Your task to perform on an android device: Search for acer predator on newegg.com, select the first entry, add it to the cart, then select checkout. Image 0: 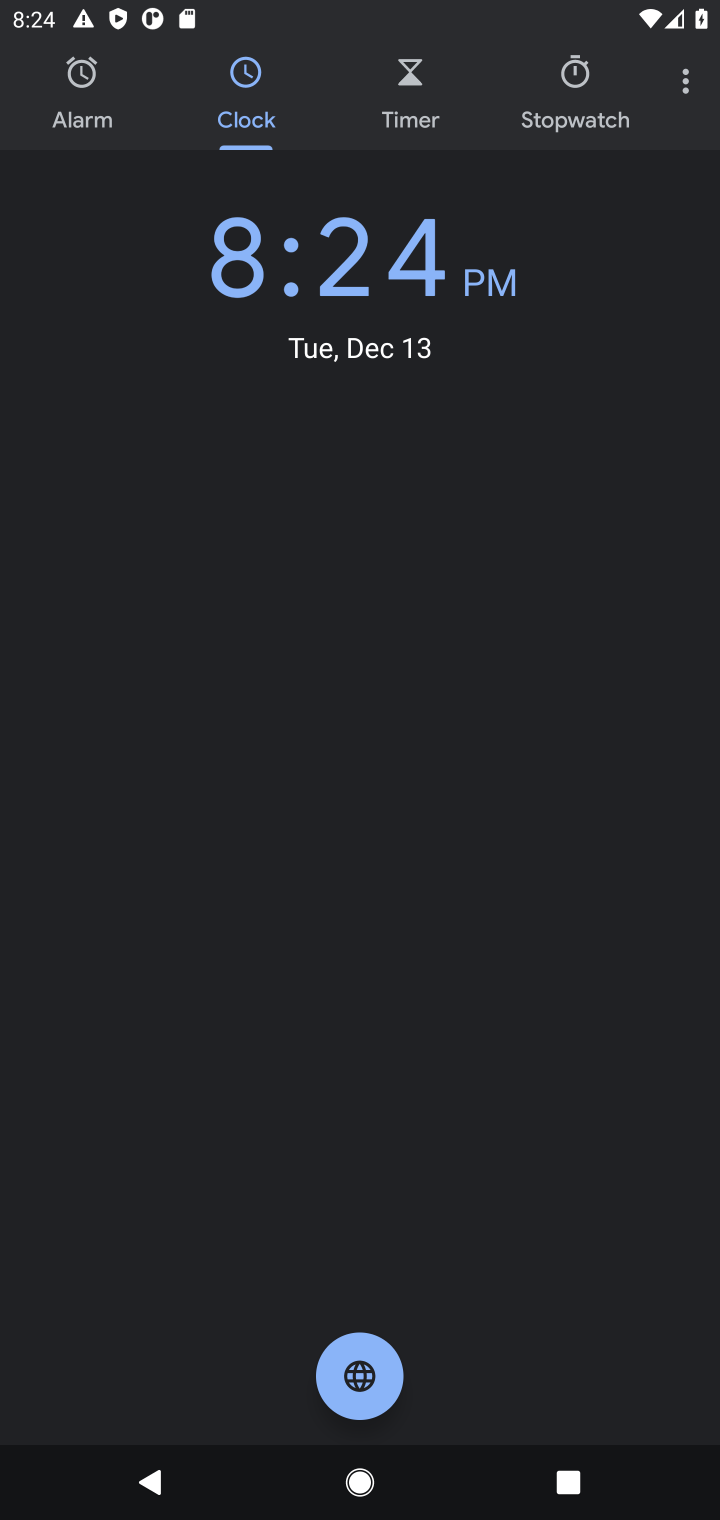
Step 0: press home button
Your task to perform on an android device: Search for acer predator on newegg.com, select the first entry, add it to the cart, then select checkout. Image 1: 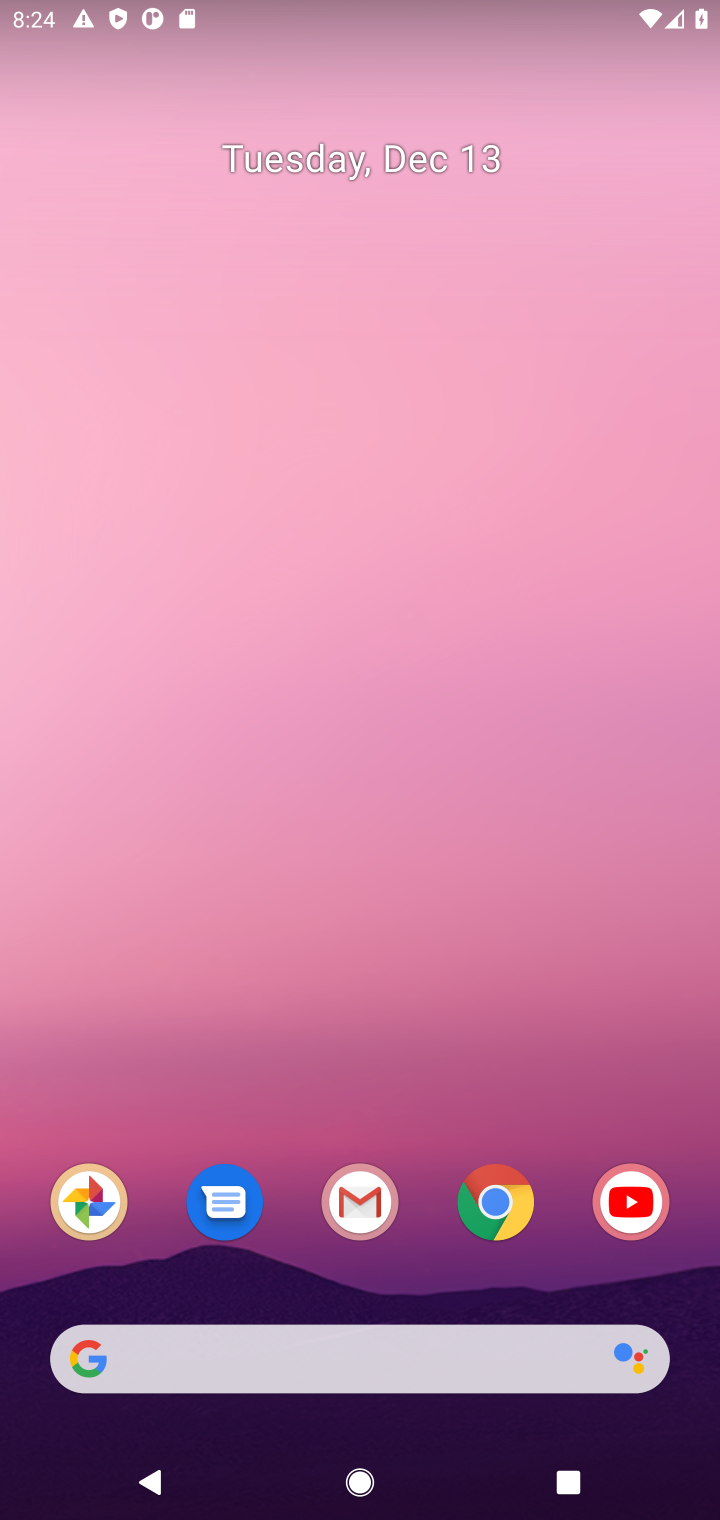
Step 1: click (491, 1216)
Your task to perform on an android device: Search for acer predator on newegg.com, select the first entry, add it to the cart, then select checkout. Image 2: 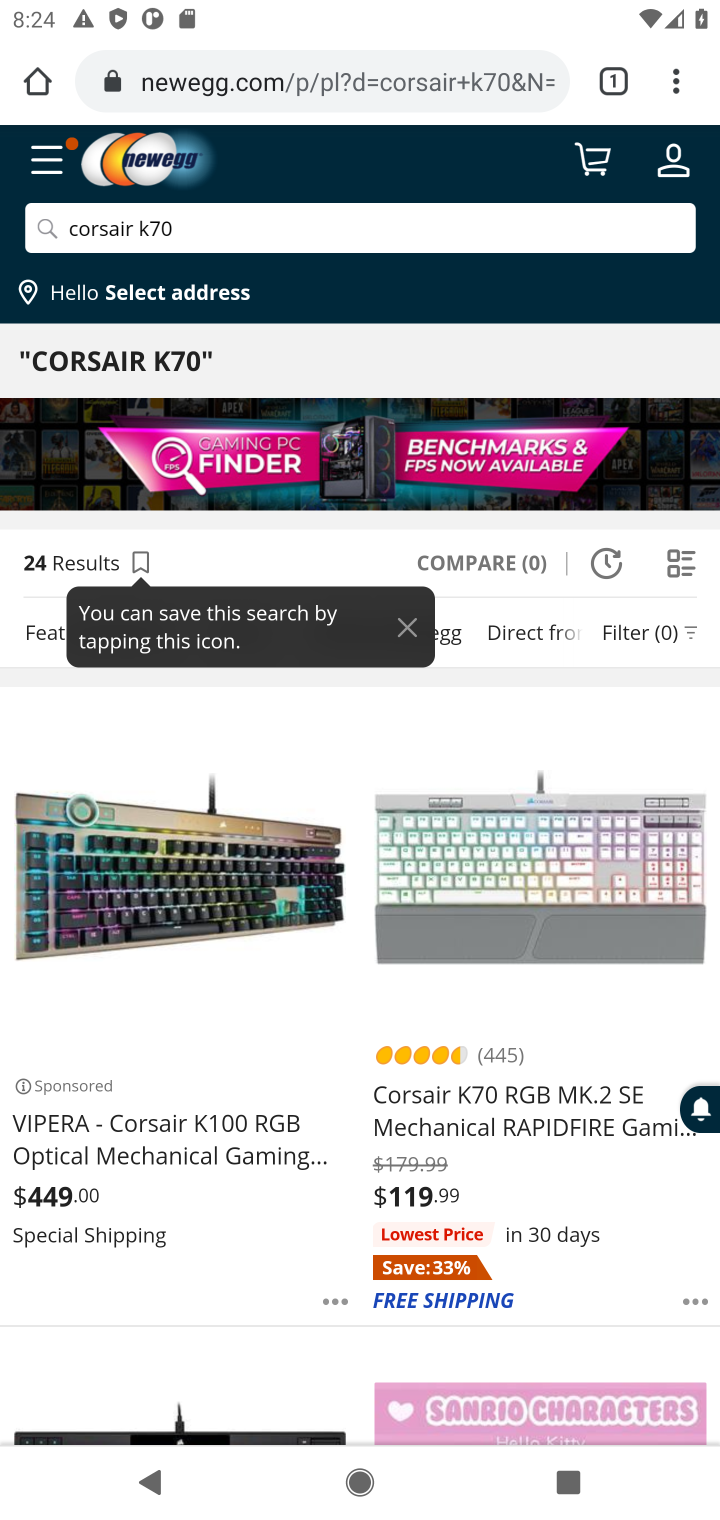
Step 2: click (374, 221)
Your task to perform on an android device: Search for acer predator on newegg.com, select the first entry, add it to the cart, then select checkout. Image 3: 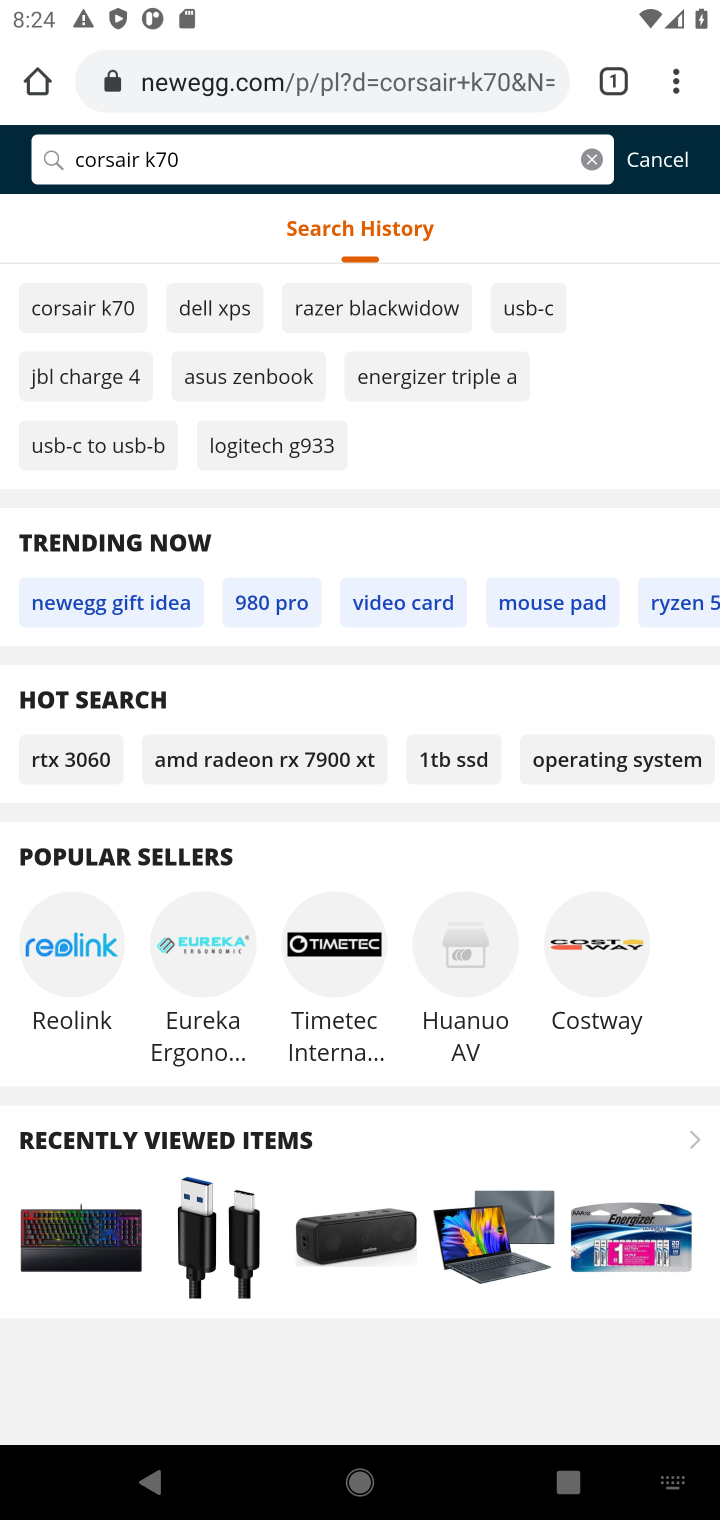
Step 3: click (603, 161)
Your task to perform on an android device: Search for acer predator on newegg.com, select the first entry, add it to the cart, then select checkout. Image 4: 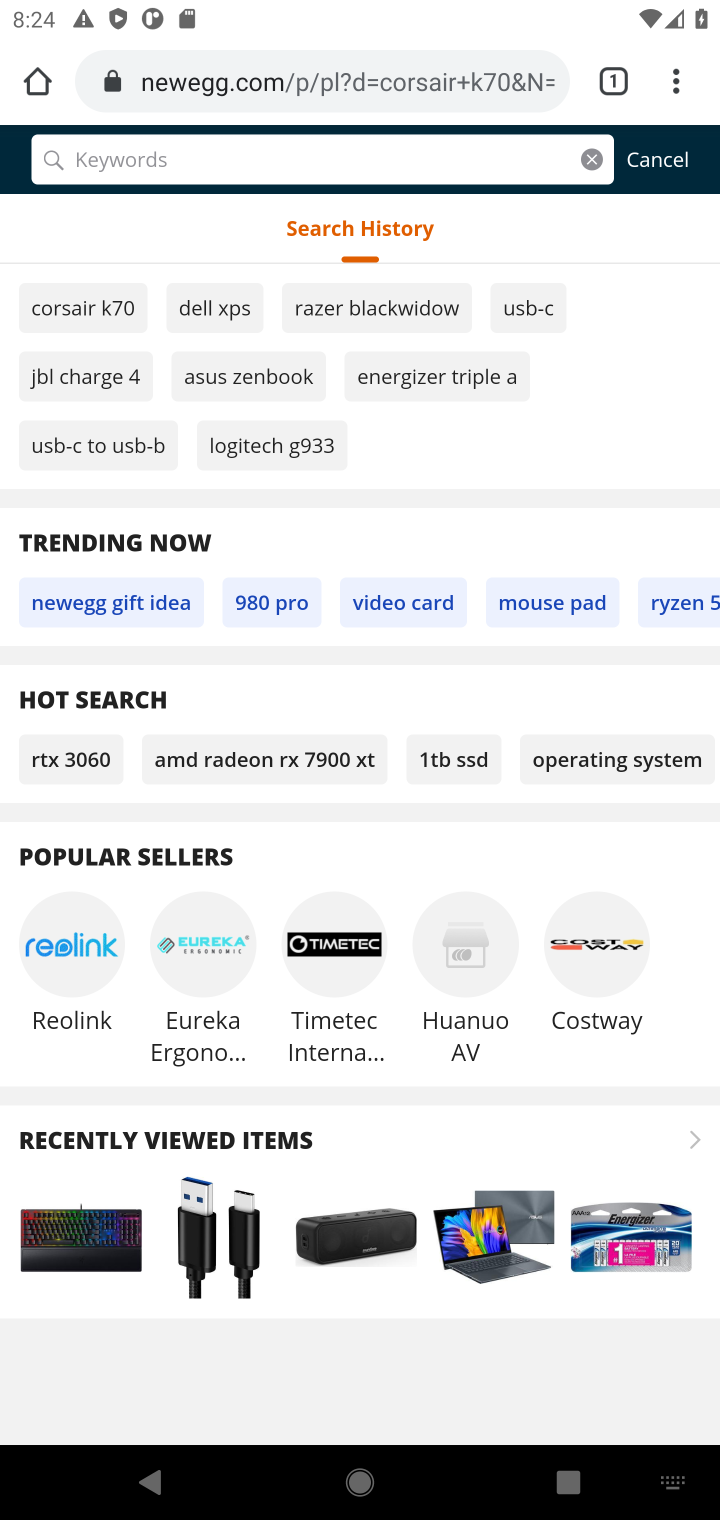
Step 4: type "acer predator"
Your task to perform on an android device: Search for acer predator on newegg.com, select the first entry, add it to the cart, then select checkout. Image 5: 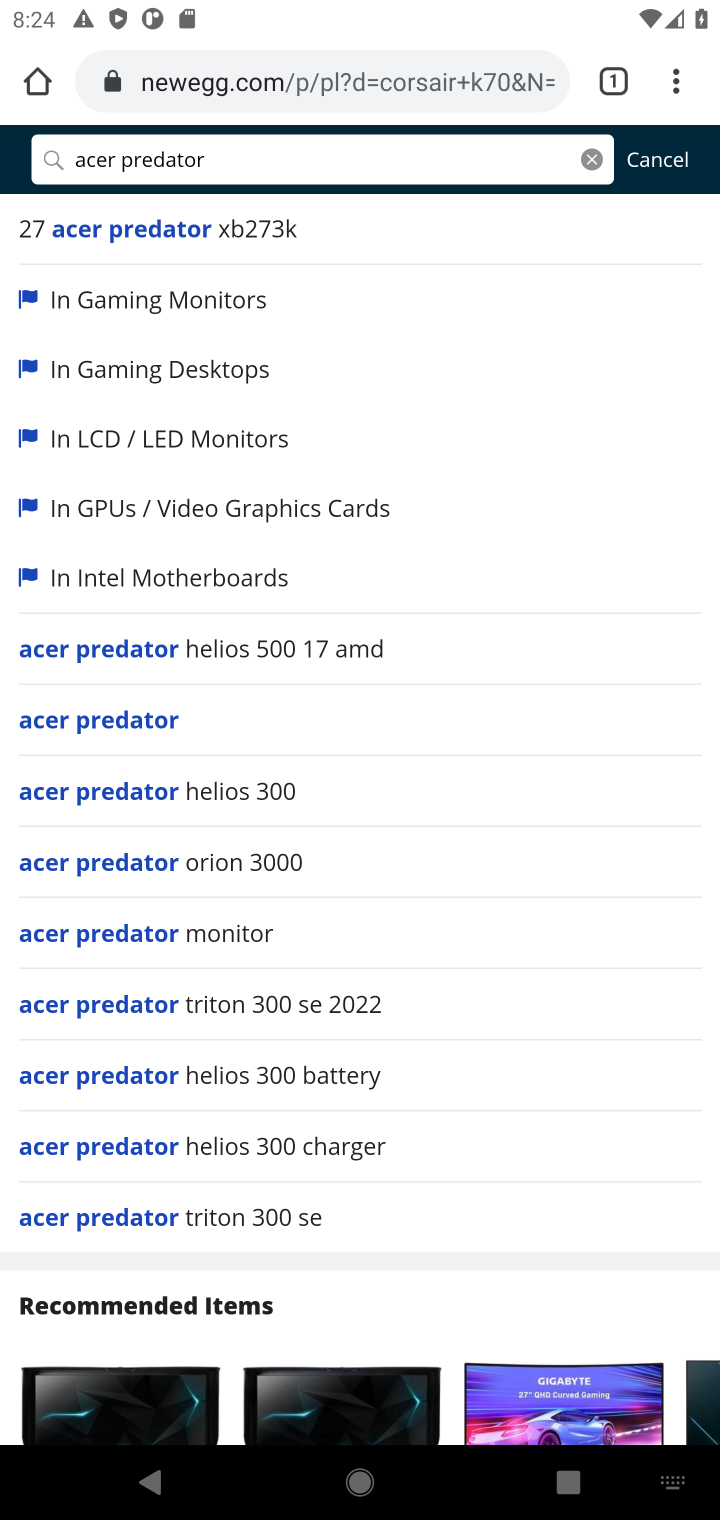
Step 5: click (96, 714)
Your task to perform on an android device: Search for acer predator on newegg.com, select the first entry, add it to the cart, then select checkout. Image 6: 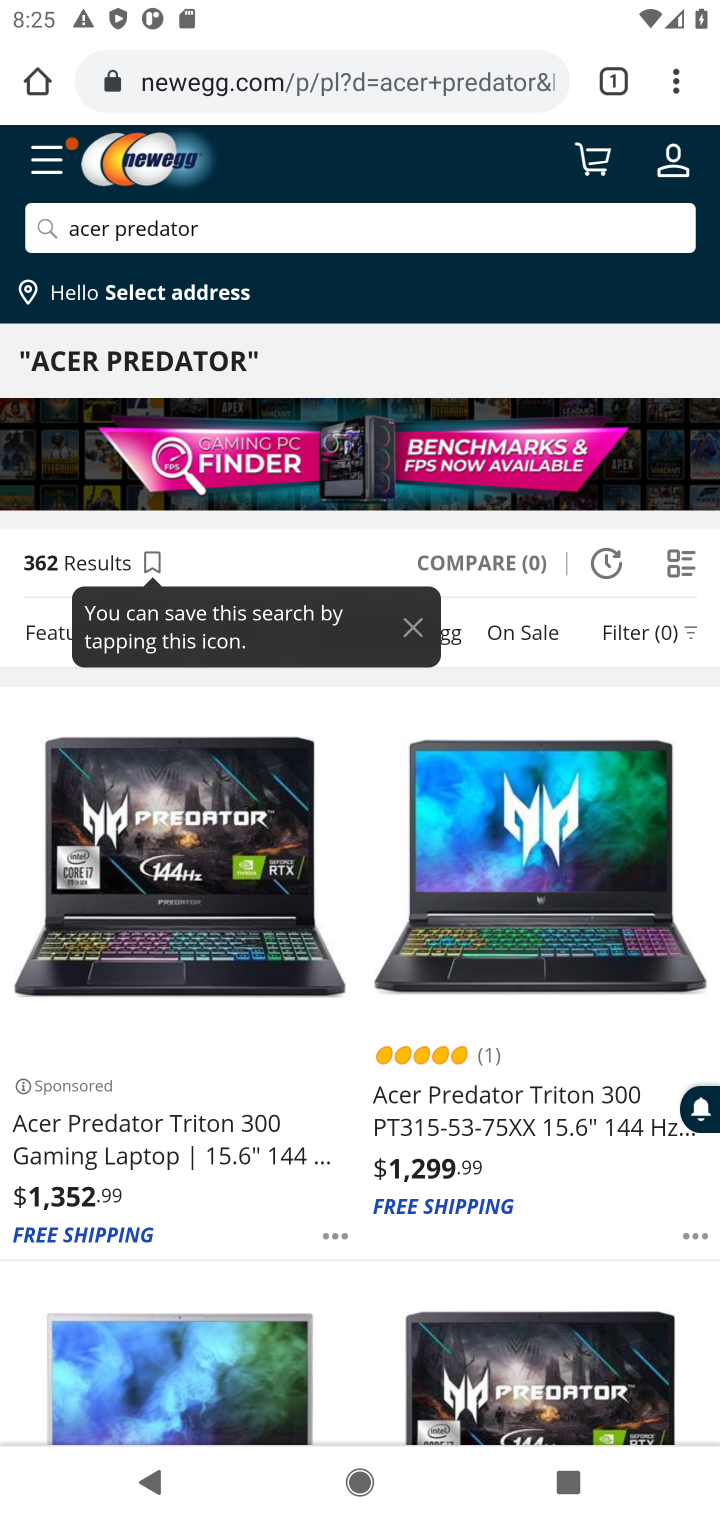
Step 6: click (210, 1008)
Your task to perform on an android device: Search for acer predator on newegg.com, select the first entry, add it to the cart, then select checkout. Image 7: 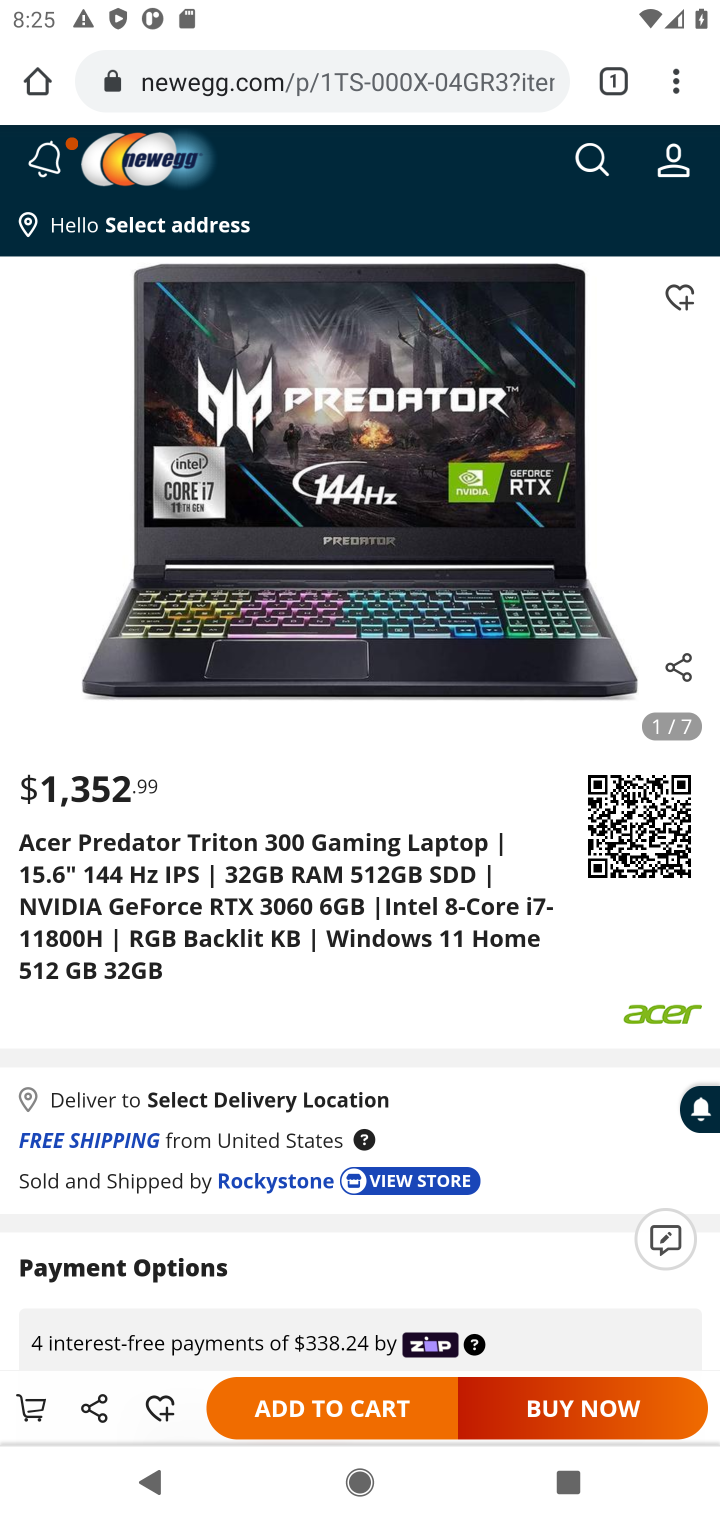
Step 7: click (377, 1410)
Your task to perform on an android device: Search for acer predator on newegg.com, select the first entry, add it to the cart, then select checkout. Image 8: 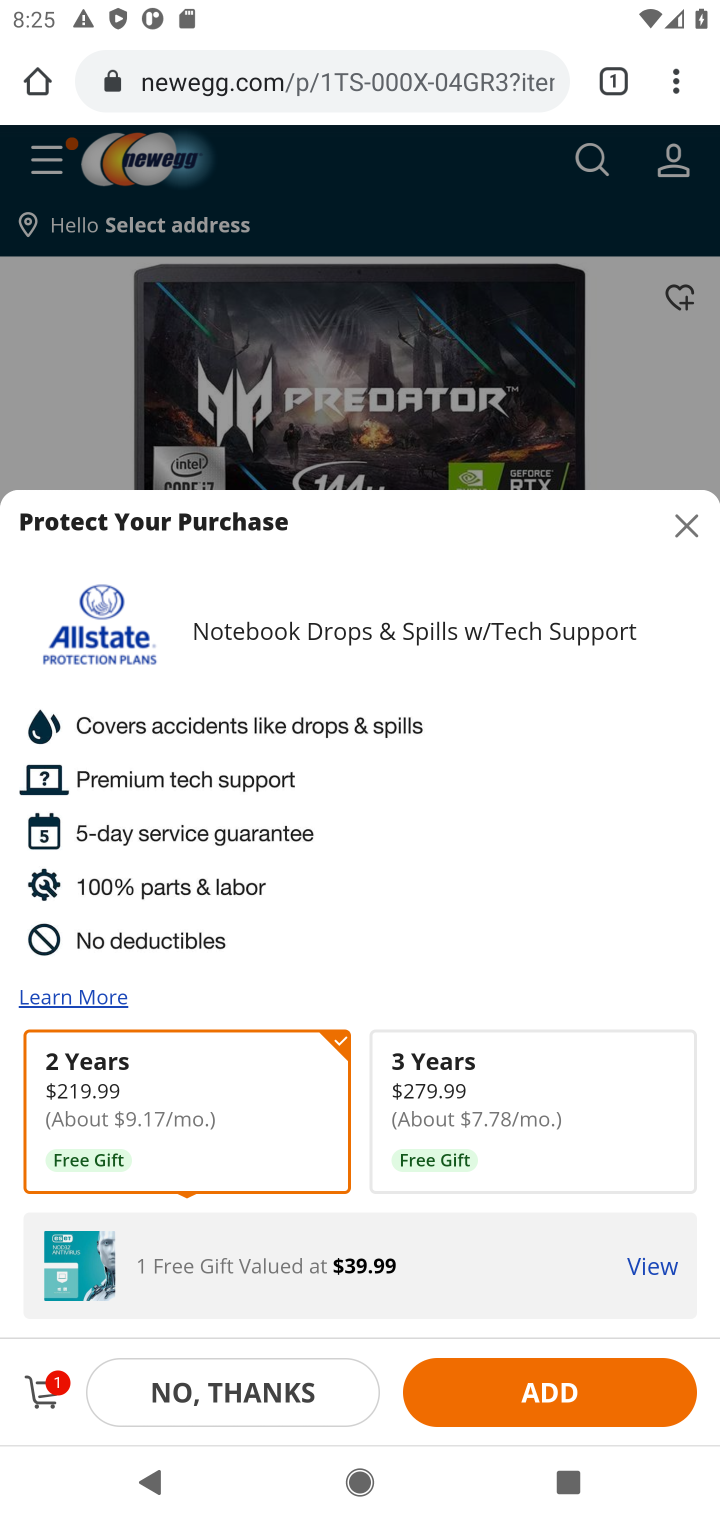
Step 8: click (293, 1392)
Your task to perform on an android device: Search for acer predator on newegg.com, select the first entry, add it to the cart, then select checkout. Image 9: 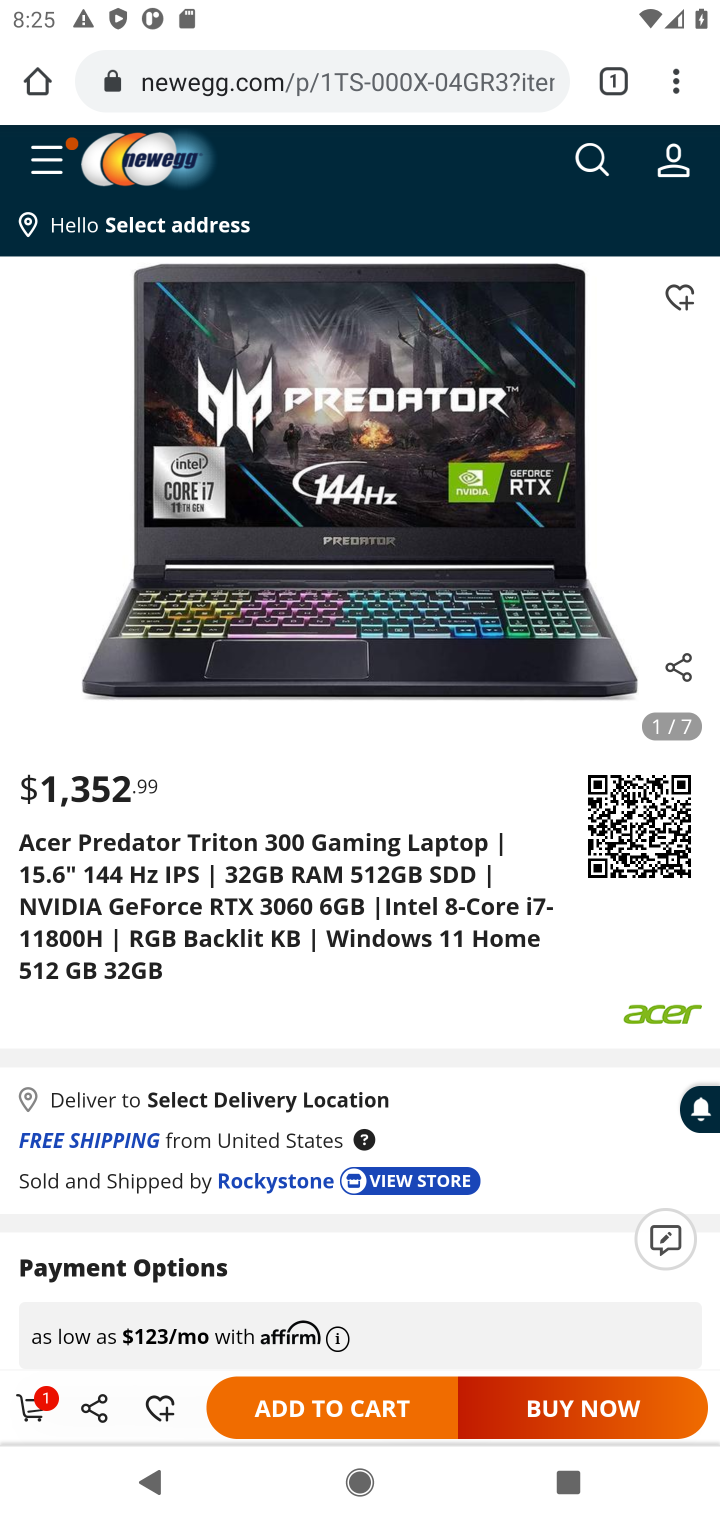
Step 9: click (40, 1406)
Your task to perform on an android device: Search for acer predator on newegg.com, select the first entry, add it to the cart, then select checkout. Image 10: 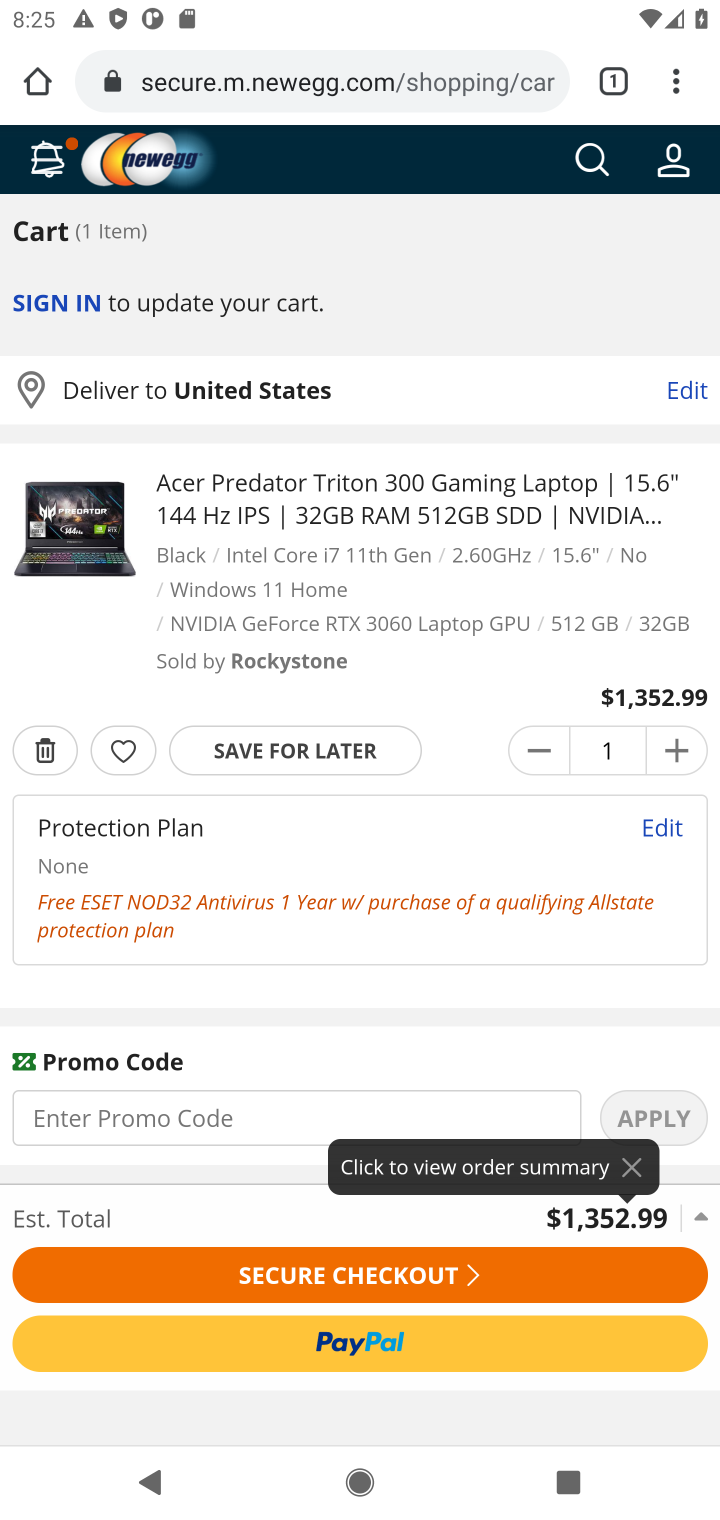
Step 10: click (299, 1280)
Your task to perform on an android device: Search for acer predator on newegg.com, select the first entry, add it to the cart, then select checkout. Image 11: 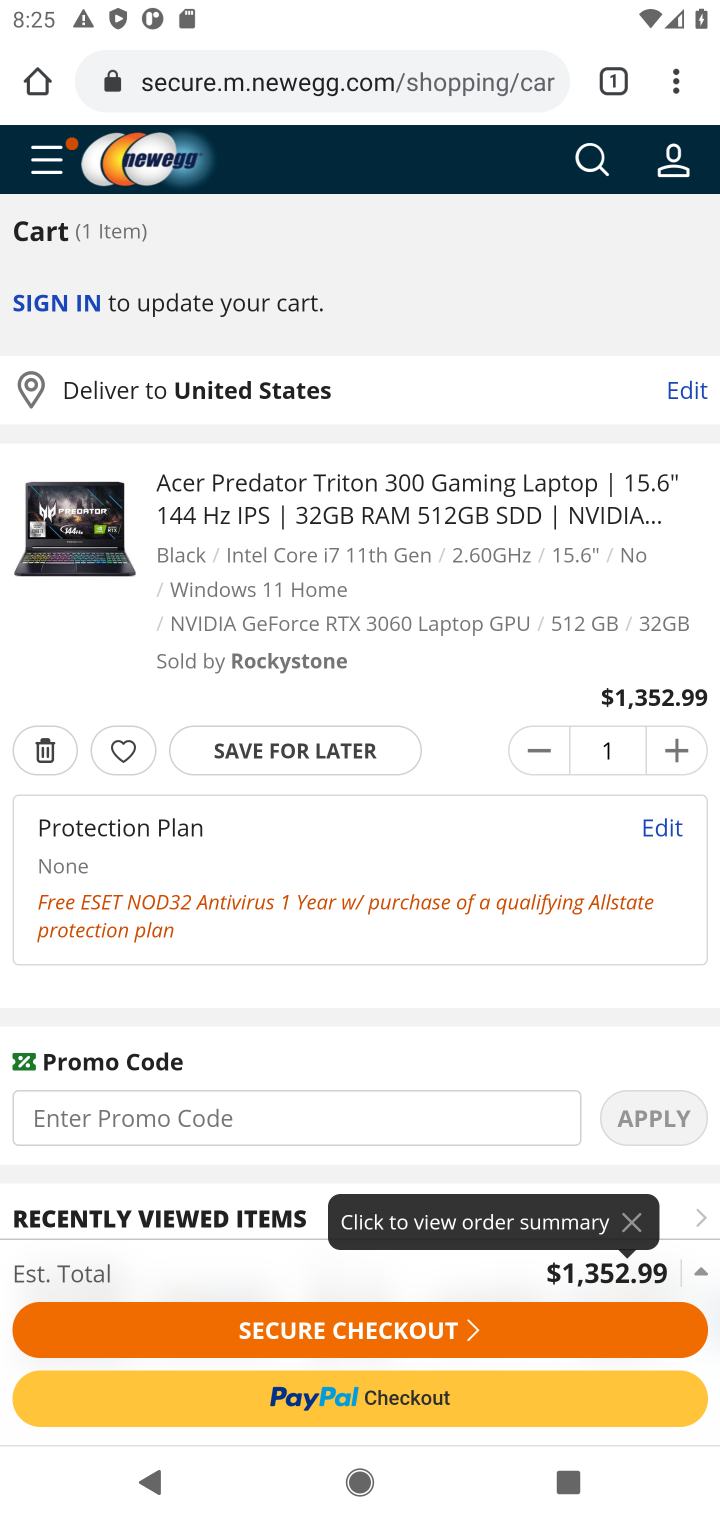
Step 11: click (474, 1339)
Your task to perform on an android device: Search for acer predator on newegg.com, select the first entry, add it to the cart, then select checkout. Image 12: 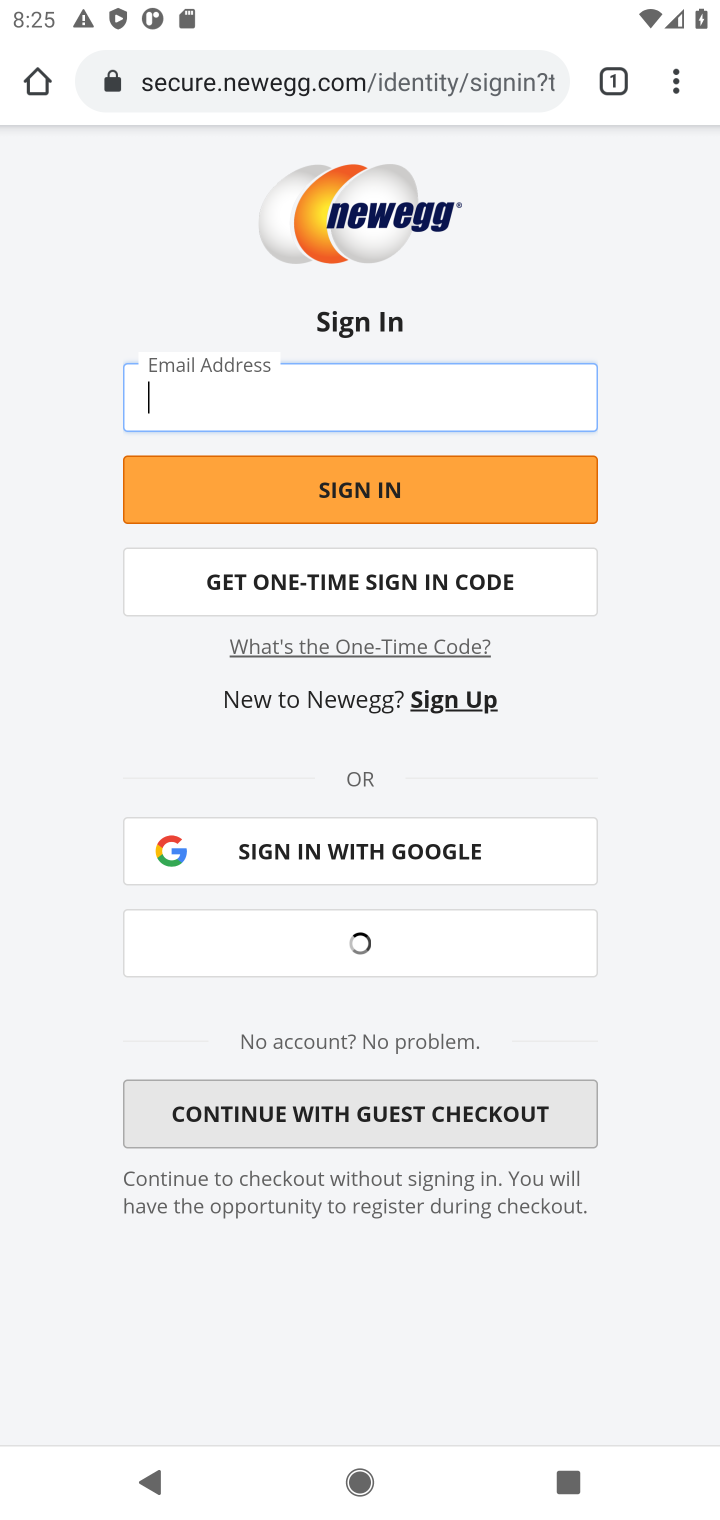
Step 12: task complete